Your task to perform on an android device: check out phone information Image 0: 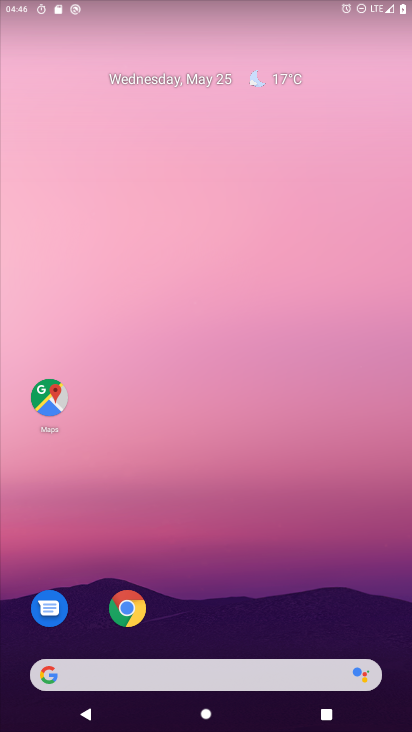
Step 0: drag from (204, 563) to (156, 160)
Your task to perform on an android device: check out phone information Image 1: 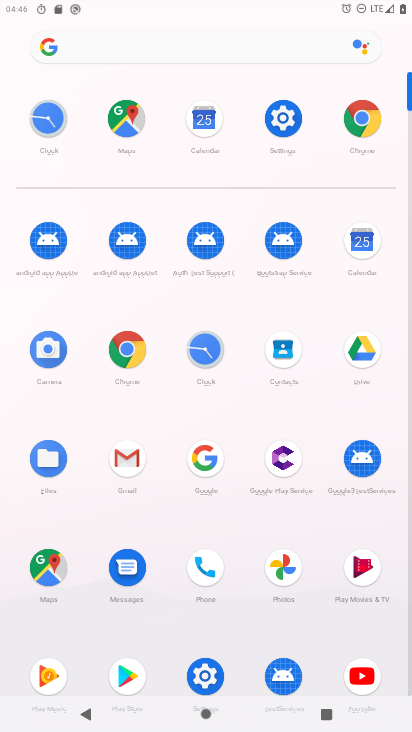
Step 1: click (199, 563)
Your task to perform on an android device: check out phone information Image 2: 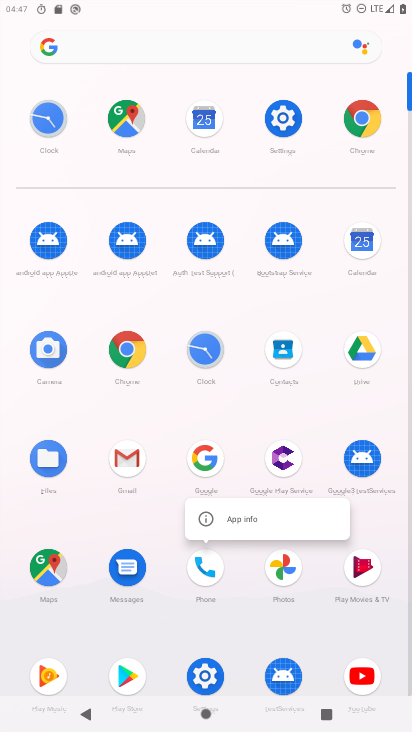
Step 2: click (235, 513)
Your task to perform on an android device: check out phone information Image 3: 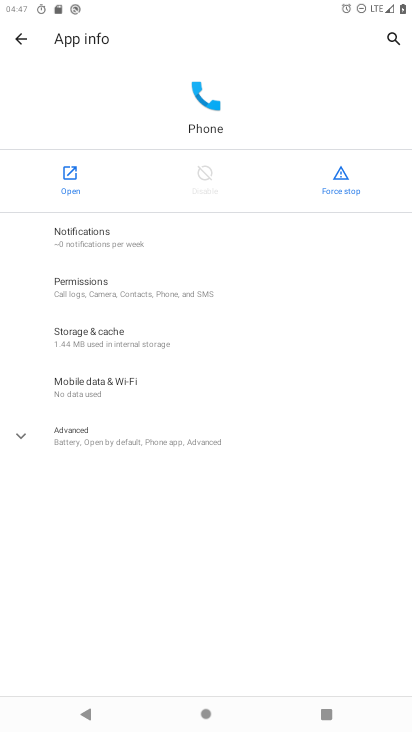
Step 3: task complete